Your task to perform on an android device: change the clock display to digital Image 0: 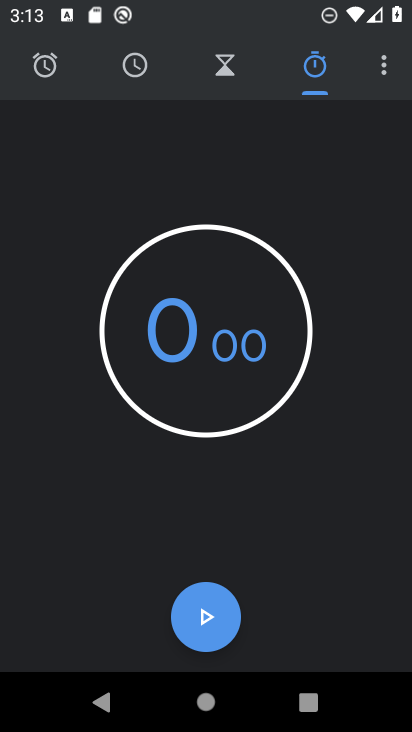
Step 0: click (391, 73)
Your task to perform on an android device: change the clock display to digital Image 1: 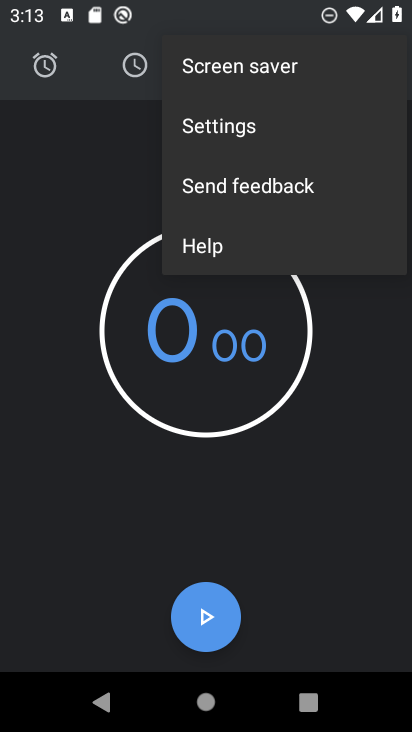
Step 1: click (259, 134)
Your task to perform on an android device: change the clock display to digital Image 2: 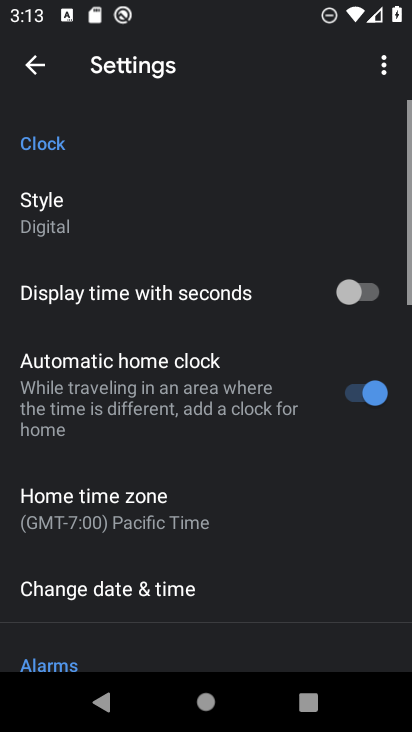
Step 2: click (119, 215)
Your task to perform on an android device: change the clock display to digital Image 3: 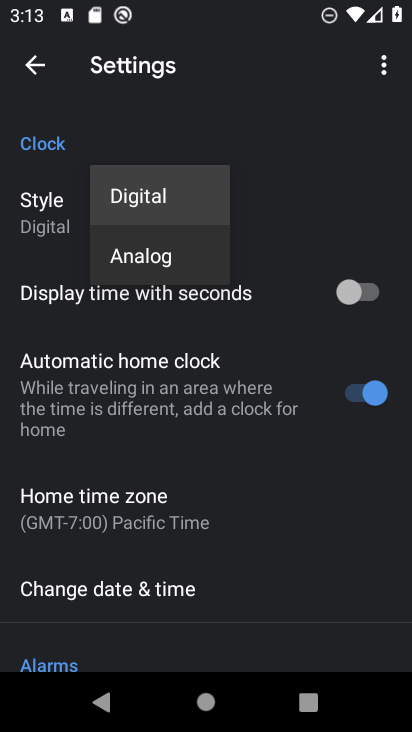
Step 3: click (169, 210)
Your task to perform on an android device: change the clock display to digital Image 4: 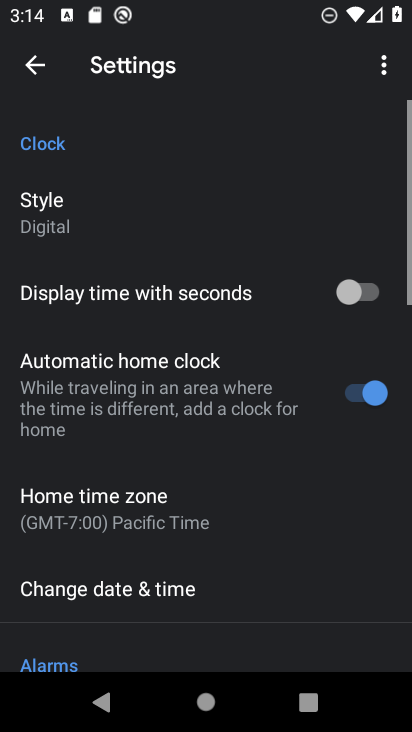
Step 4: task complete